Your task to perform on an android device: Open battery settings Image 0: 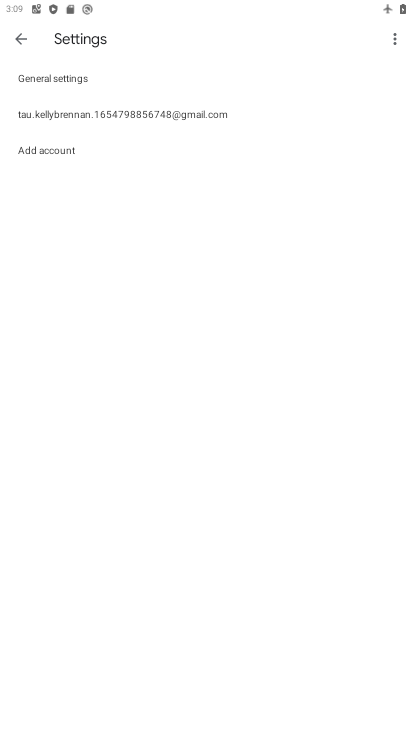
Step 0: press home button
Your task to perform on an android device: Open battery settings Image 1: 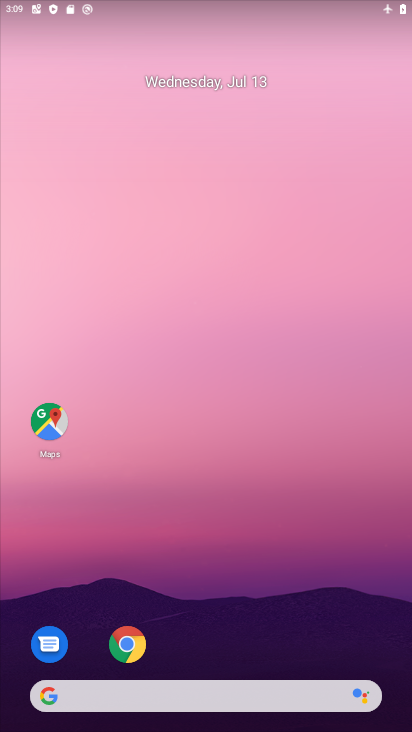
Step 1: drag from (372, 653) to (298, 140)
Your task to perform on an android device: Open battery settings Image 2: 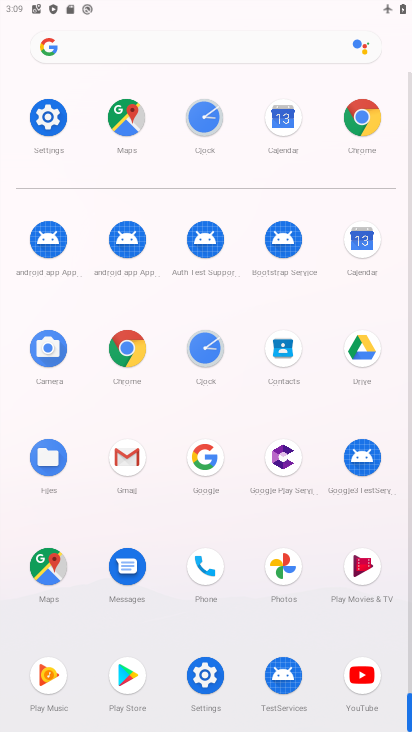
Step 2: click (47, 108)
Your task to perform on an android device: Open battery settings Image 3: 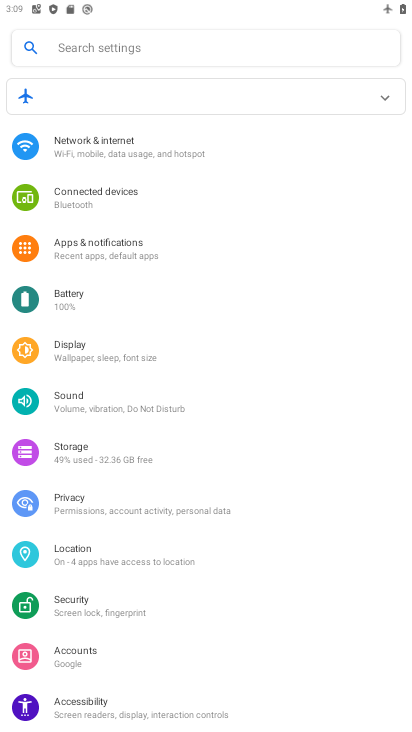
Step 3: click (72, 296)
Your task to perform on an android device: Open battery settings Image 4: 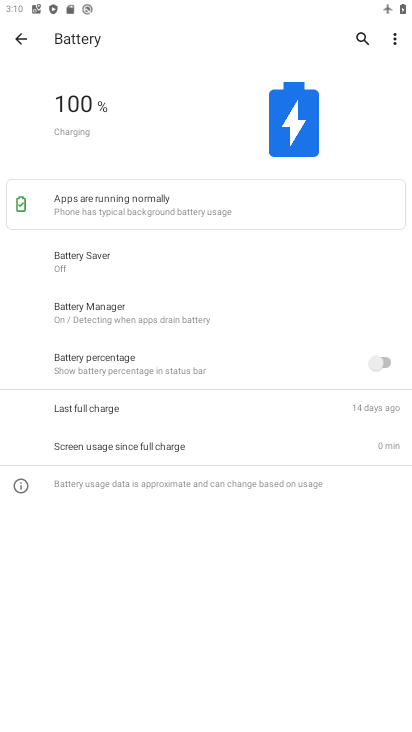
Step 4: task complete